Your task to perform on an android device: check android version Image 0: 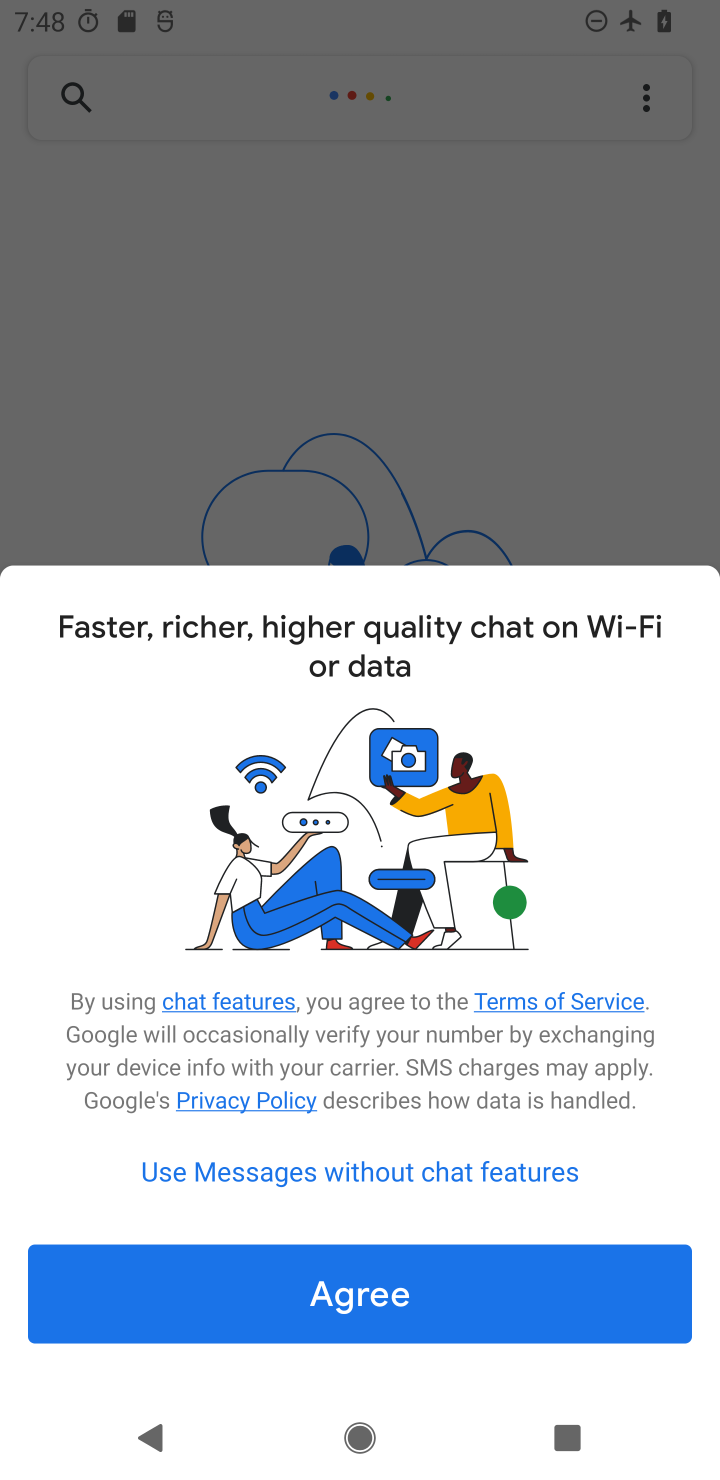
Step 0: press home button
Your task to perform on an android device: check android version Image 1: 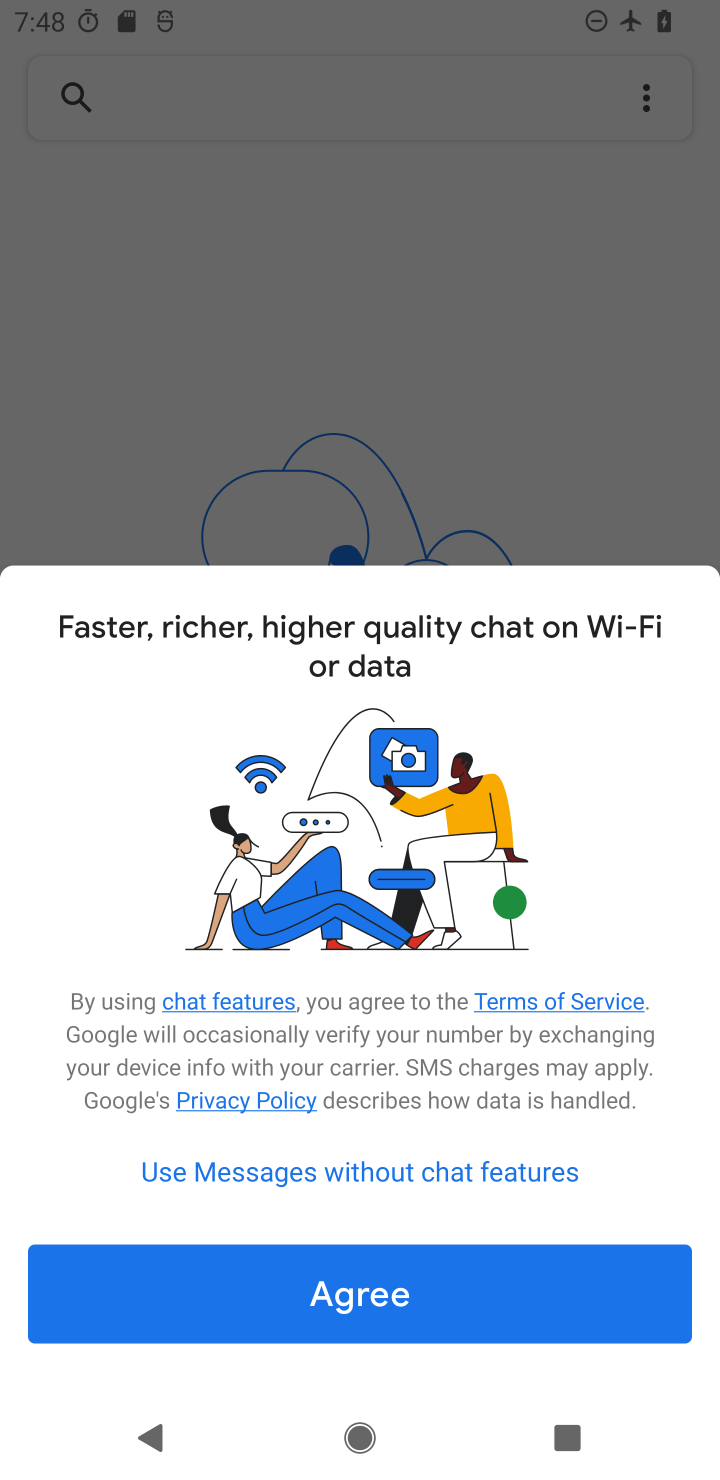
Step 1: press home button
Your task to perform on an android device: check android version Image 2: 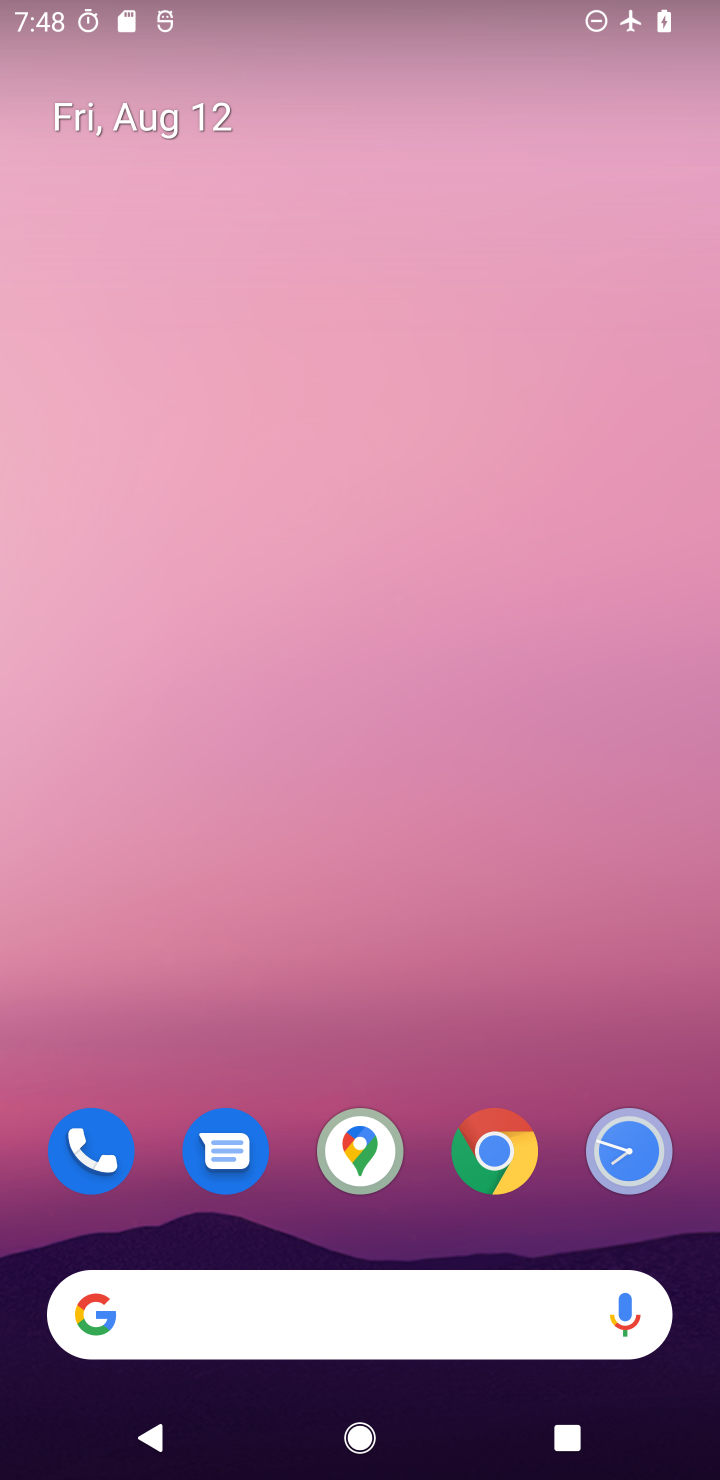
Step 2: drag from (443, 958) to (445, 12)
Your task to perform on an android device: check android version Image 3: 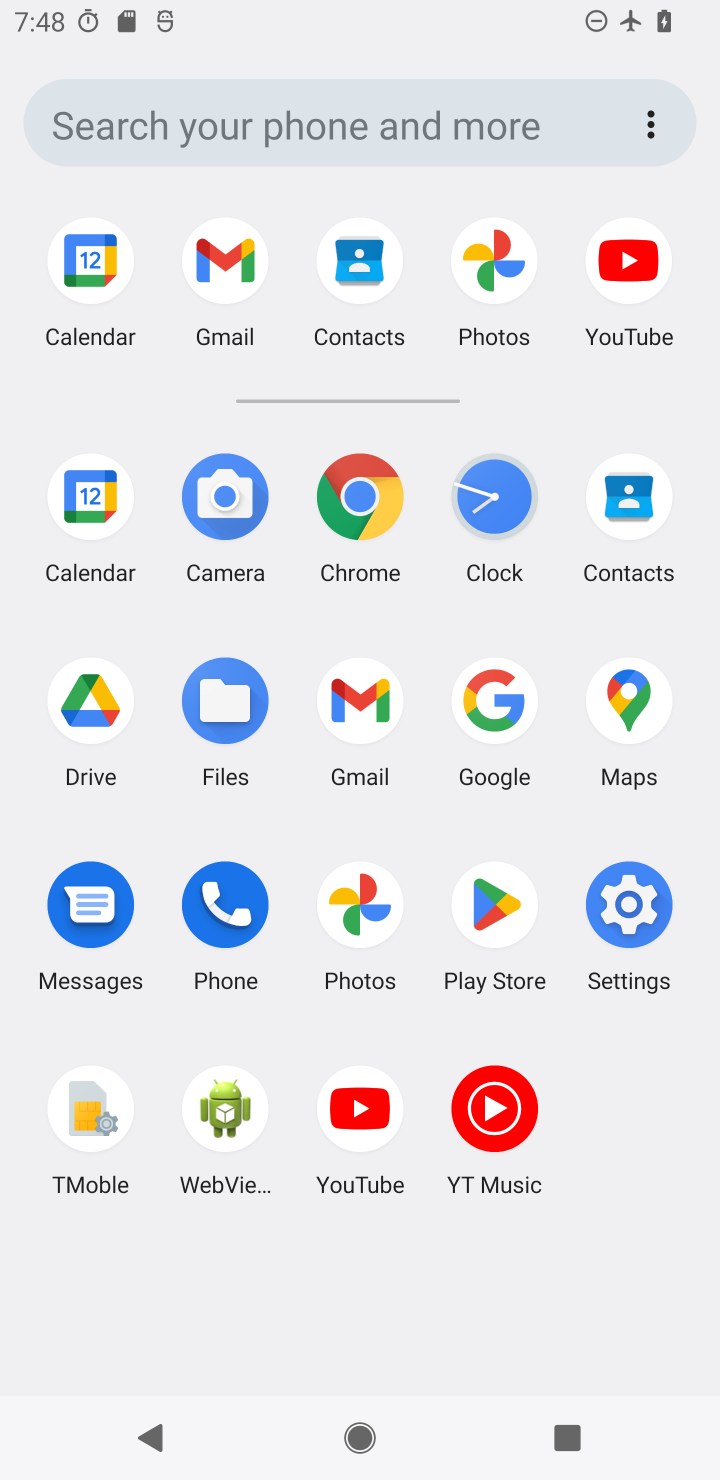
Step 3: click (661, 908)
Your task to perform on an android device: check android version Image 4: 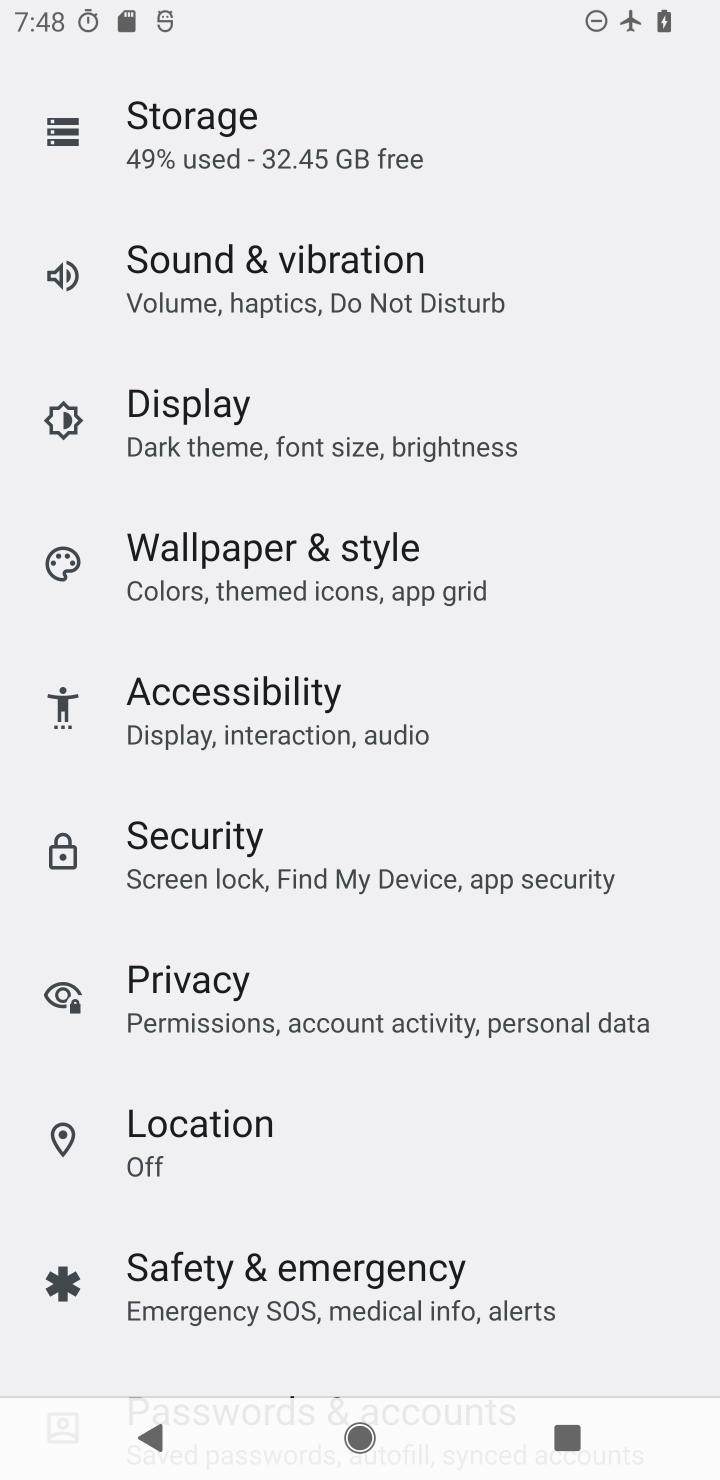
Step 4: drag from (450, 1137) to (502, 178)
Your task to perform on an android device: check android version Image 5: 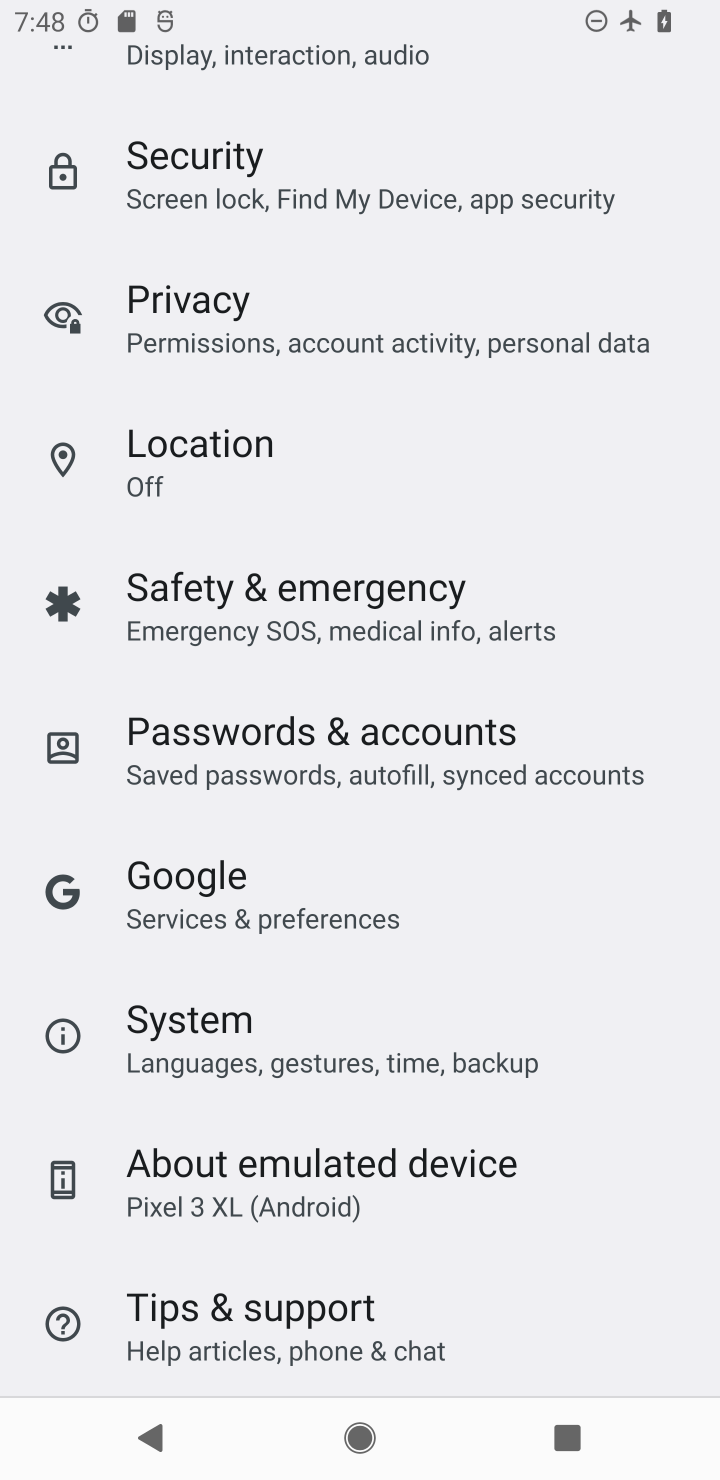
Step 5: click (347, 1209)
Your task to perform on an android device: check android version Image 6: 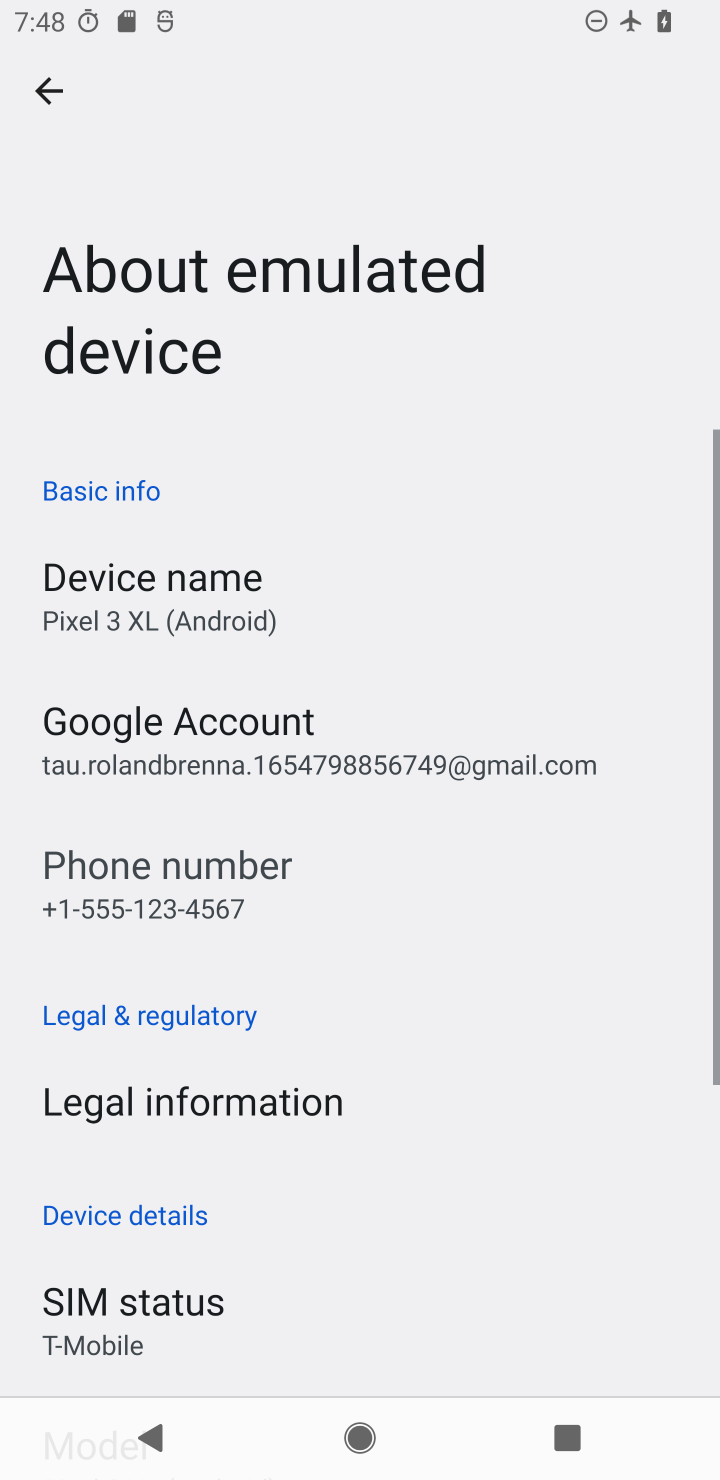
Step 6: drag from (578, 1256) to (593, 99)
Your task to perform on an android device: check android version Image 7: 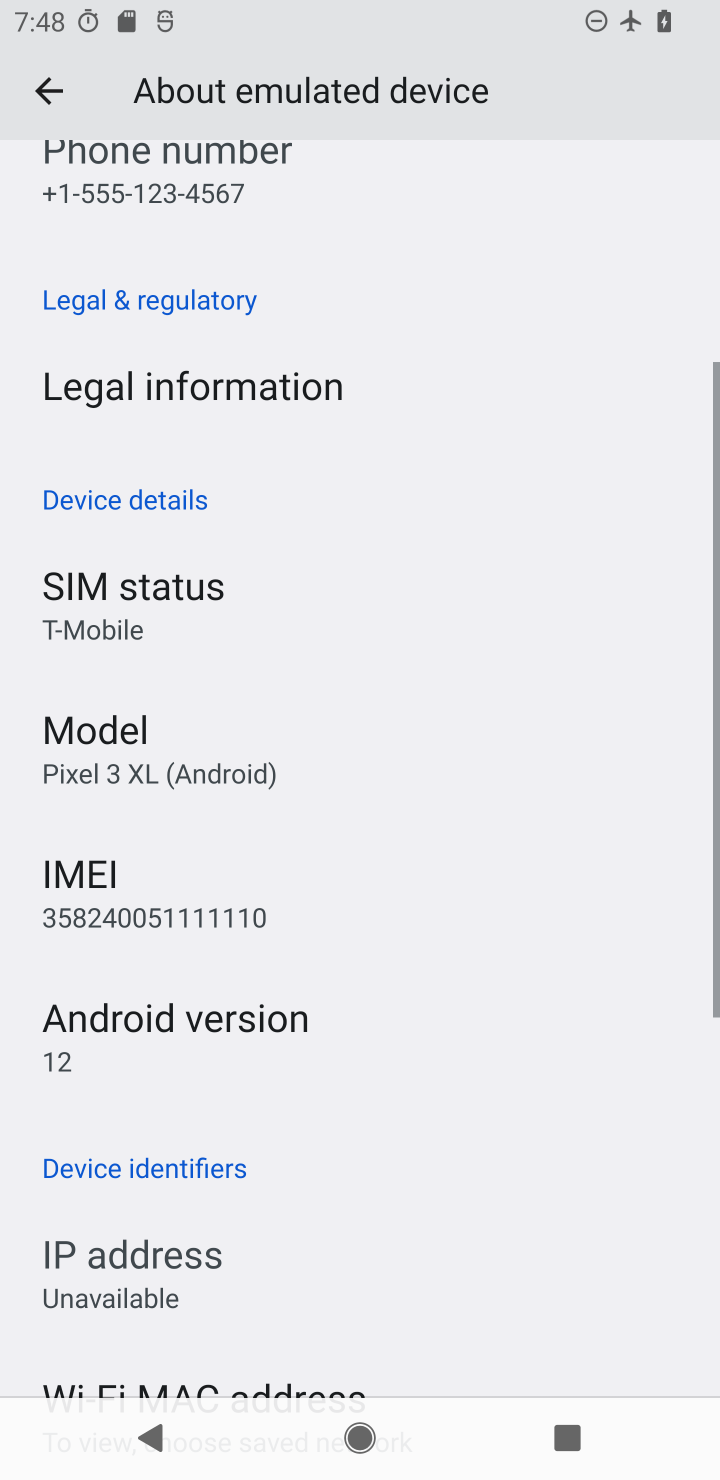
Step 7: drag from (432, 924) to (588, 189)
Your task to perform on an android device: check android version Image 8: 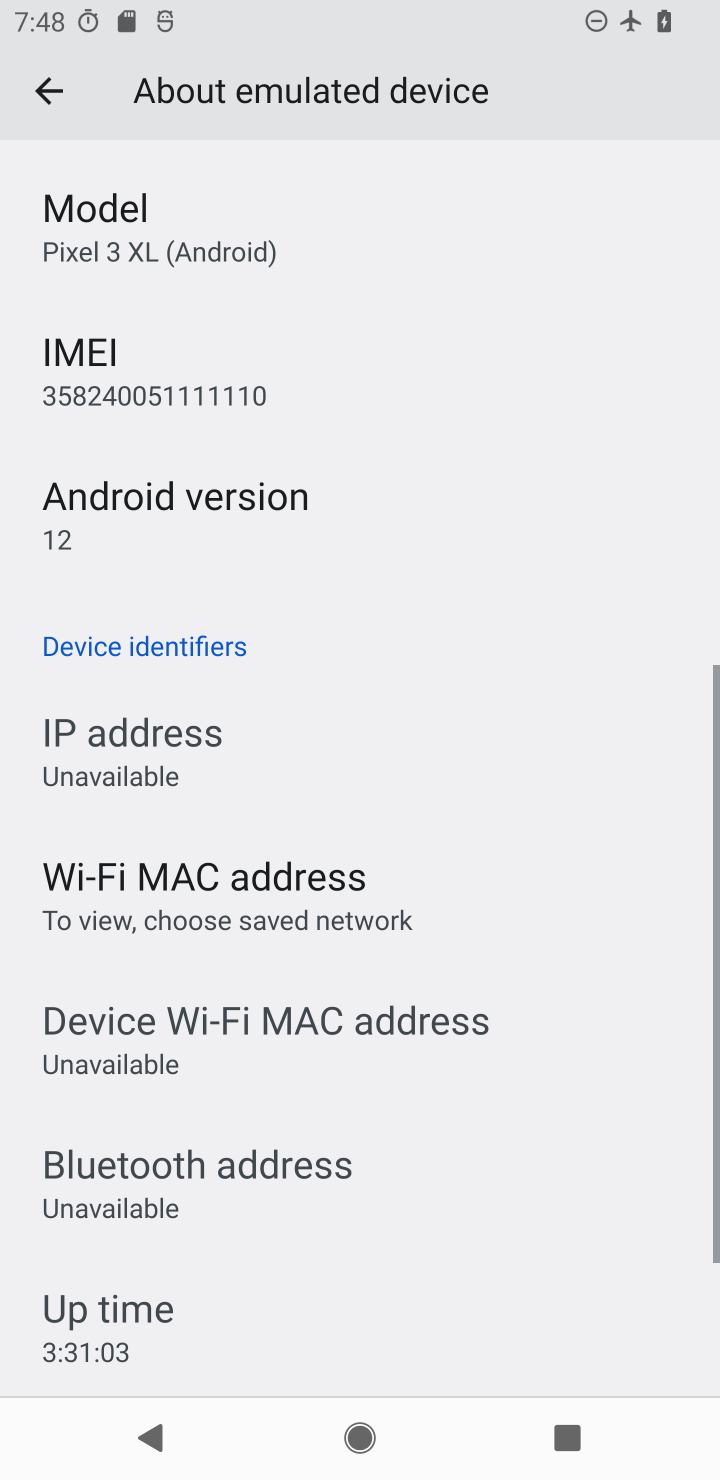
Step 8: drag from (250, 1297) to (536, 410)
Your task to perform on an android device: check android version Image 9: 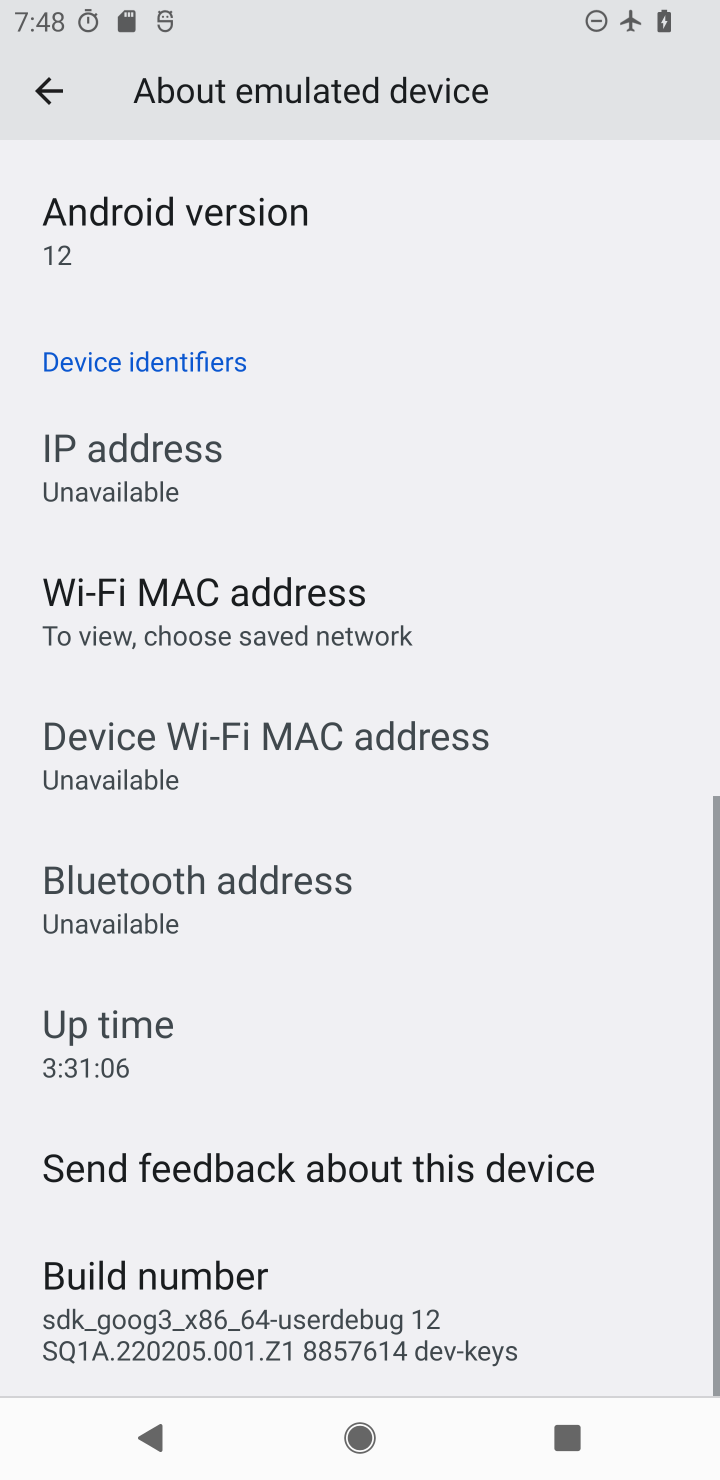
Step 9: drag from (290, 1259) to (485, 660)
Your task to perform on an android device: check android version Image 10: 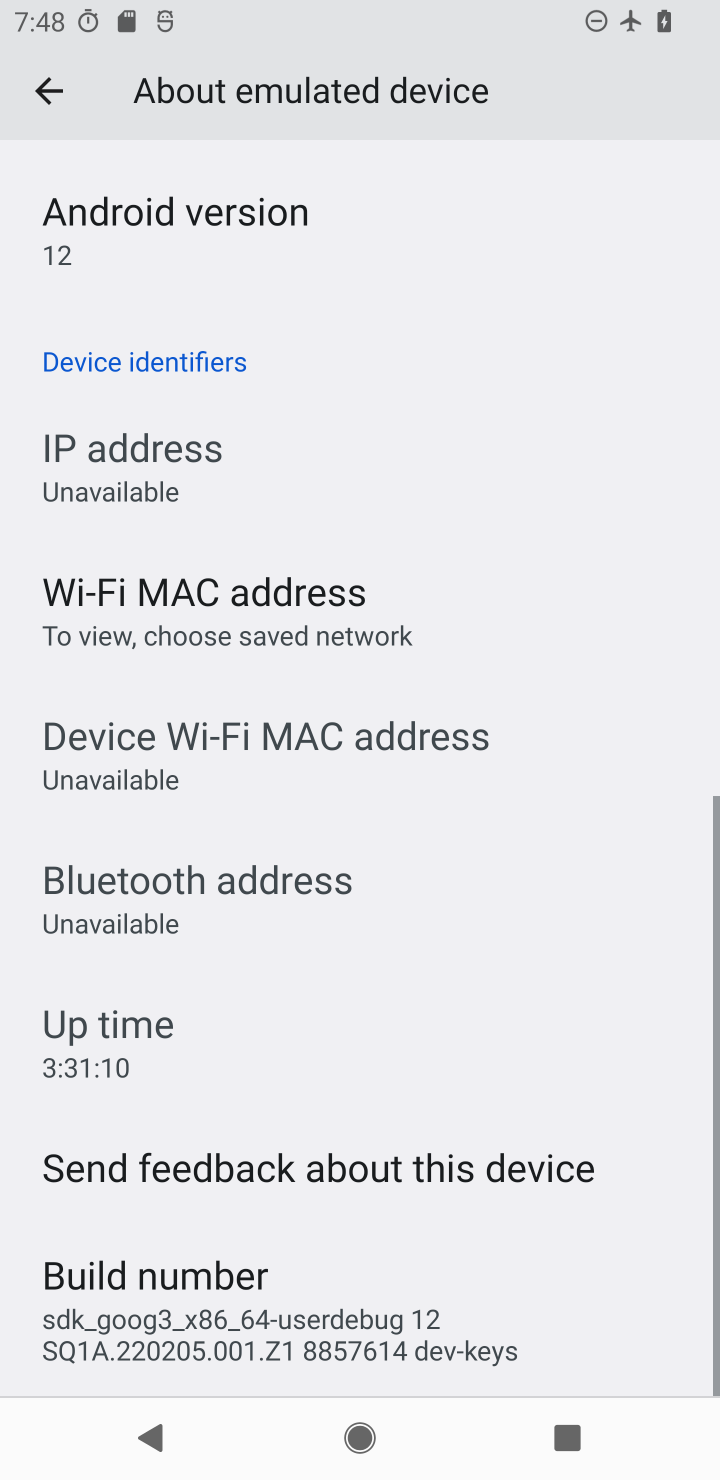
Step 10: click (259, 275)
Your task to perform on an android device: check android version Image 11: 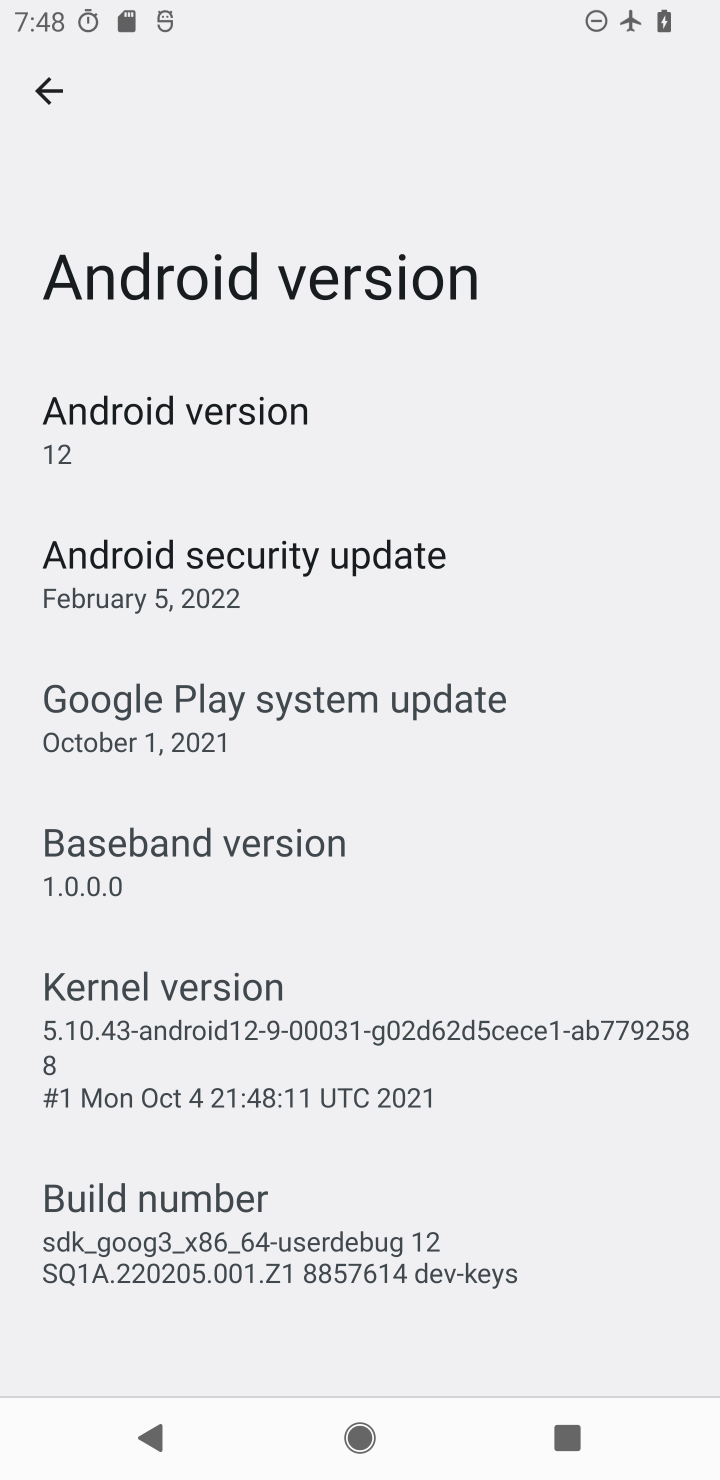
Step 11: task complete